Your task to perform on an android device: allow notifications from all sites in the chrome app Image 0: 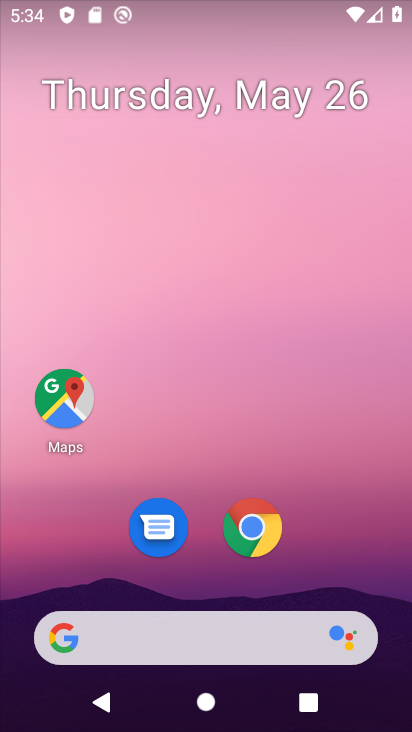
Step 0: click (321, 193)
Your task to perform on an android device: allow notifications from all sites in the chrome app Image 1: 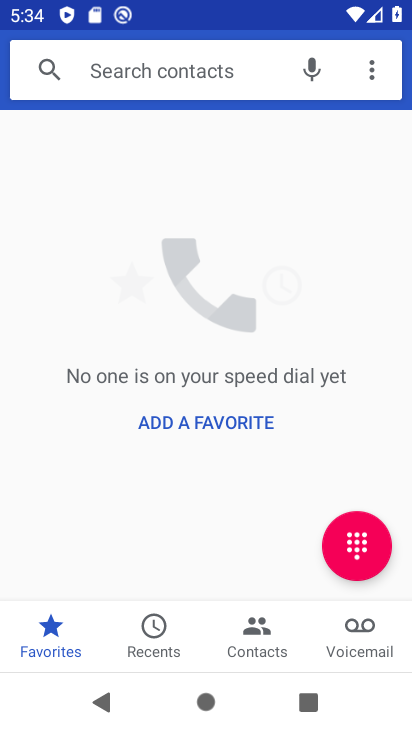
Step 1: press home button
Your task to perform on an android device: allow notifications from all sites in the chrome app Image 2: 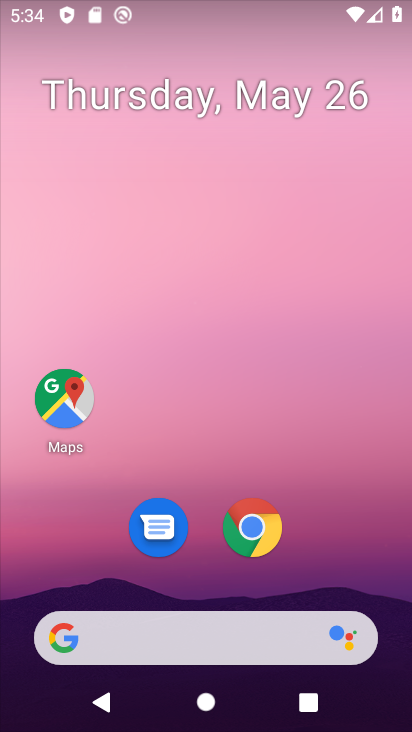
Step 2: drag from (166, 569) to (223, 190)
Your task to perform on an android device: allow notifications from all sites in the chrome app Image 3: 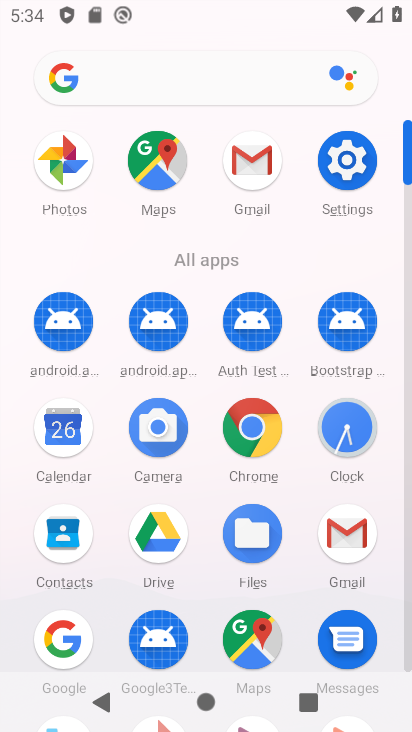
Step 3: click (260, 423)
Your task to perform on an android device: allow notifications from all sites in the chrome app Image 4: 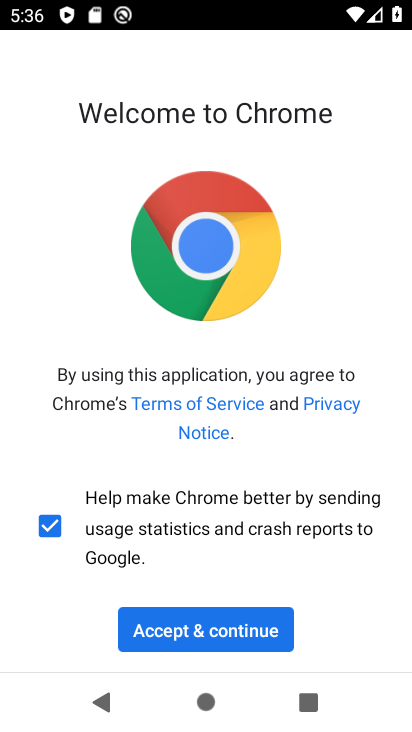
Step 4: click (187, 630)
Your task to perform on an android device: allow notifications from all sites in the chrome app Image 5: 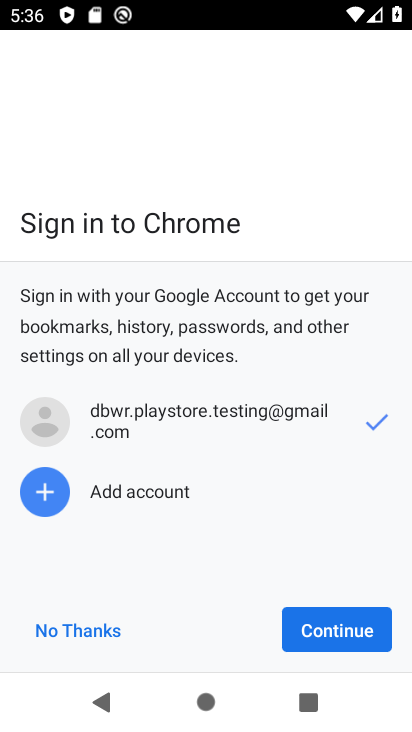
Step 5: click (296, 631)
Your task to perform on an android device: allow notifications from all sites in the chrome app Image 6: 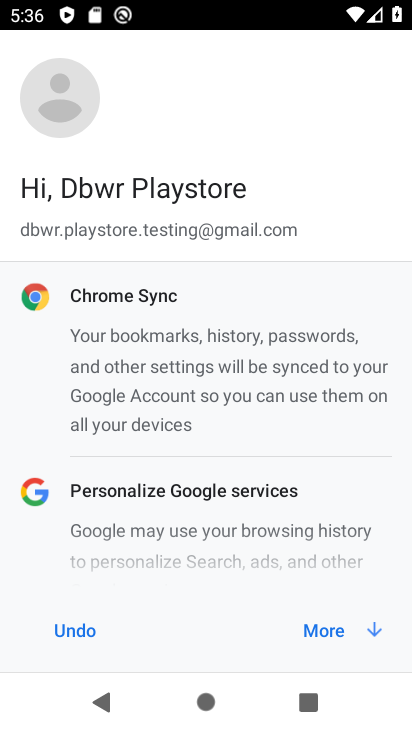
Step 6: click (319, 635)
Your task to perform on an android device: allow notifications from all sites in the chrome app Image 7: 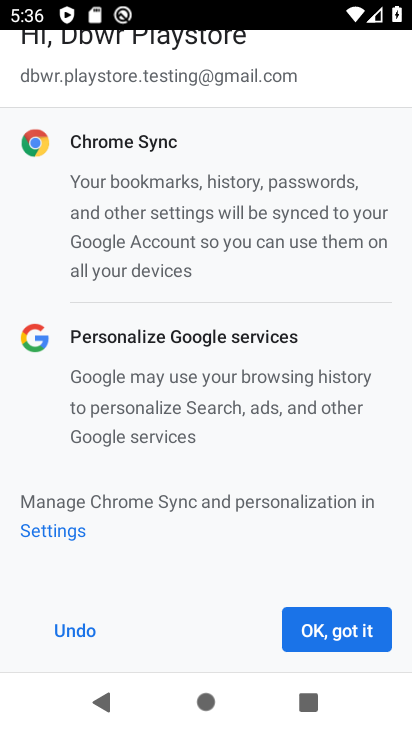
Step 7: click (313, 642)
Your task to perform on an android device: allow notifications from all sites in the chrome app Image 8: 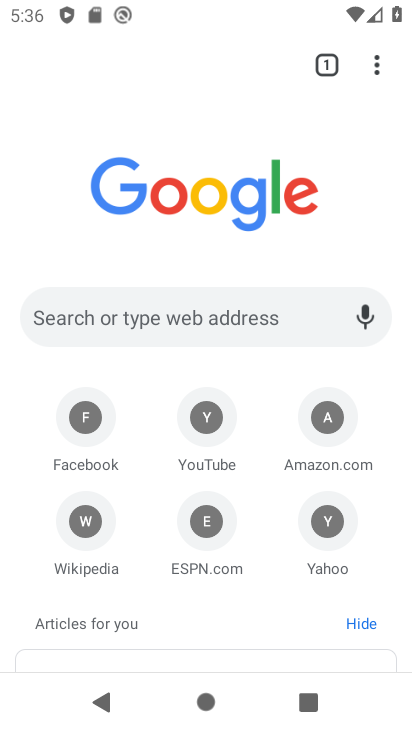
Step 8: task complete